Your task to perform on an android device: Show me popular videos on Youtube Image 0: 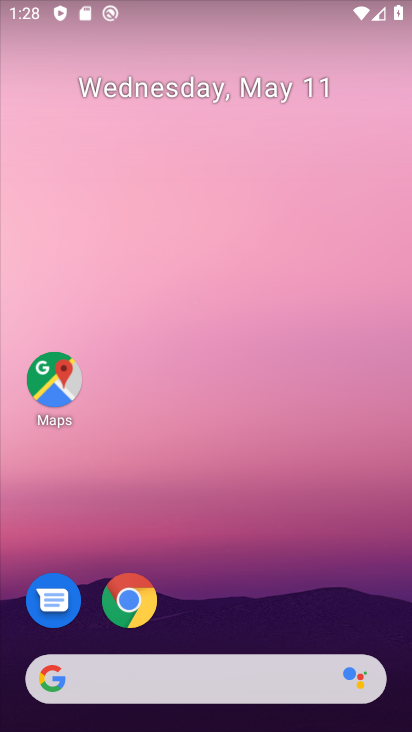
Step 0: drag from (282, 509) to (307, 324)
Your task to perform on an android device: Show me popular videos on Youtube Image 1: 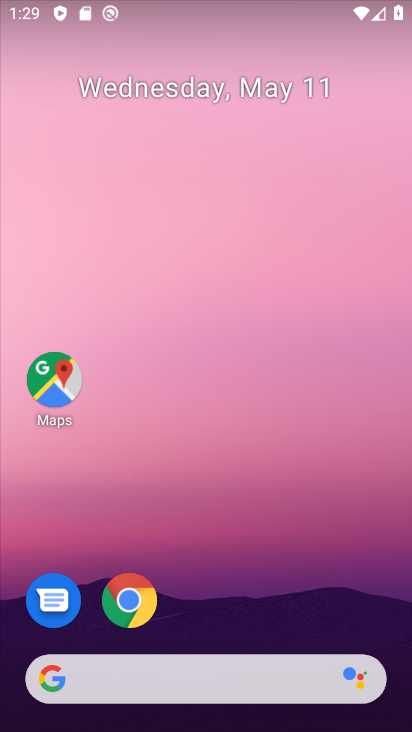
Step 1: drag from (254, 604) to (278, 247)
Your task to perform on an android device: Show me popular videos on Youtube Image 2: 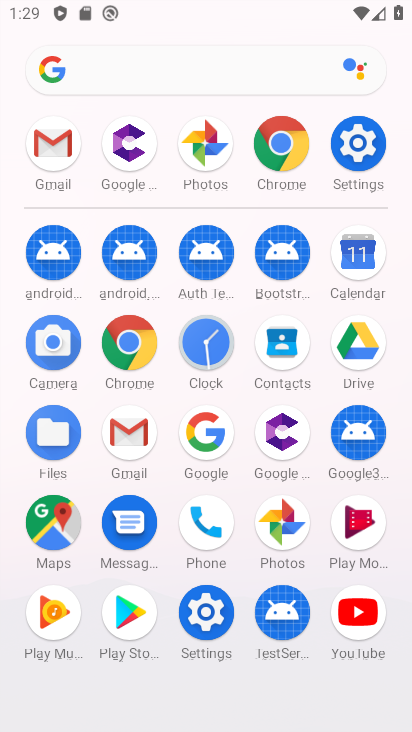
Step 2: click (346, 623)
Your task to perform on an android device: Show me popular videos on Youtube Image 3: 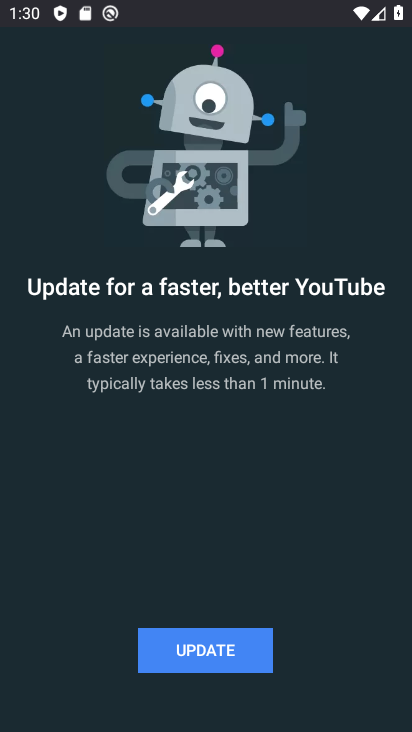
Step 3: task complete